Your task to perform on an android device: turn off picture-in-picture Image 0: 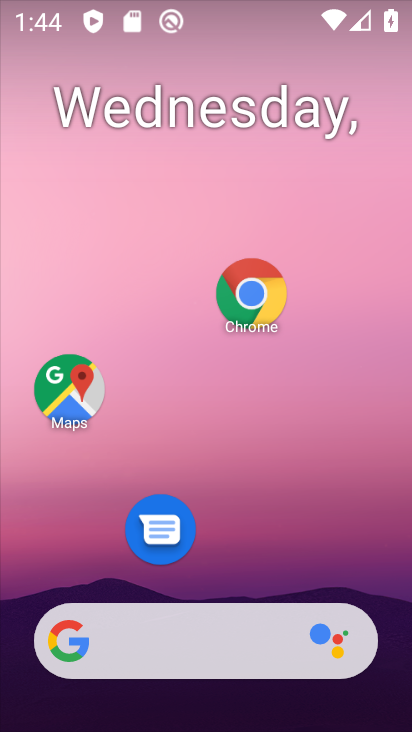
Step 0: drag from (294, 449) to (321, 126)
Your task to perform on an android device: turn off picture-in-picture Image 1: 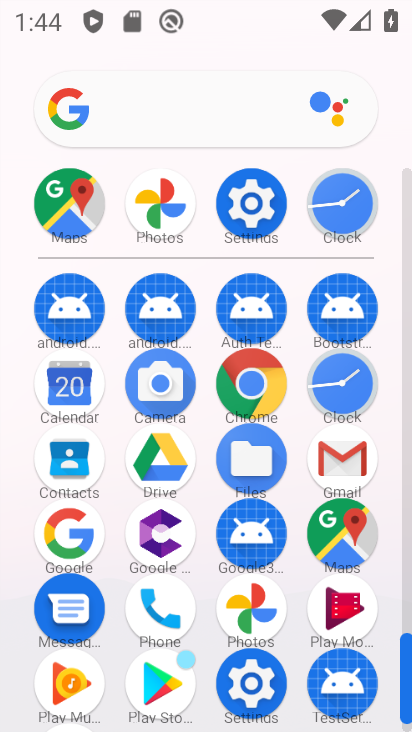
Step 1: click (252, 227)
Your task to perform on an android device: turn off picture-in-picture Image 2: 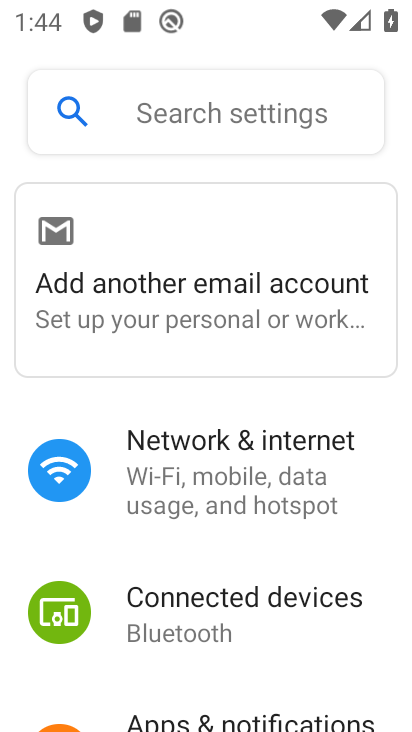
Step 2: drag from (267, 530) to (291, 290)
Your task to perform on an android device: turn off picture-in-picture Image 3: 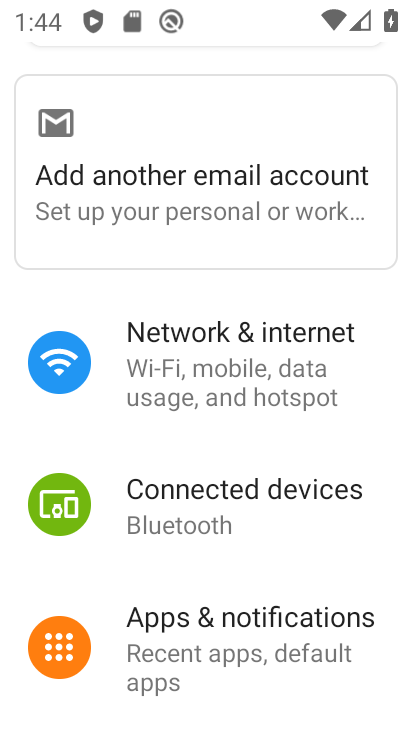
Step 3: drag from (281, 467) to (314, 282)
Your task to perform on an android device: turn off picture-in-picture Image 4: 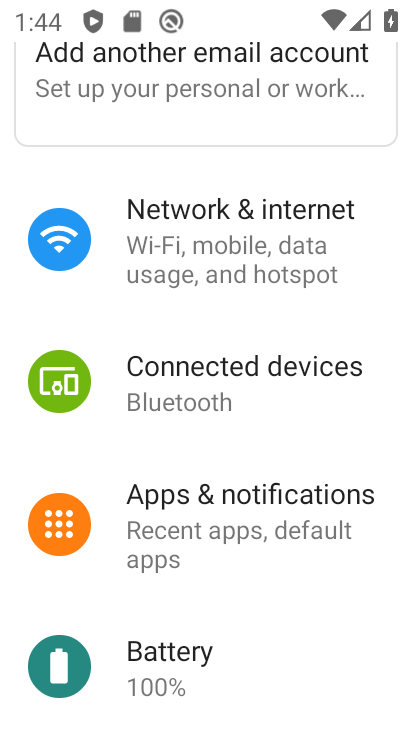
Step 4: drag from (290, 488) to (313, 270)
Your task to perform on an android device: turn off picture-in-picture Image 5: 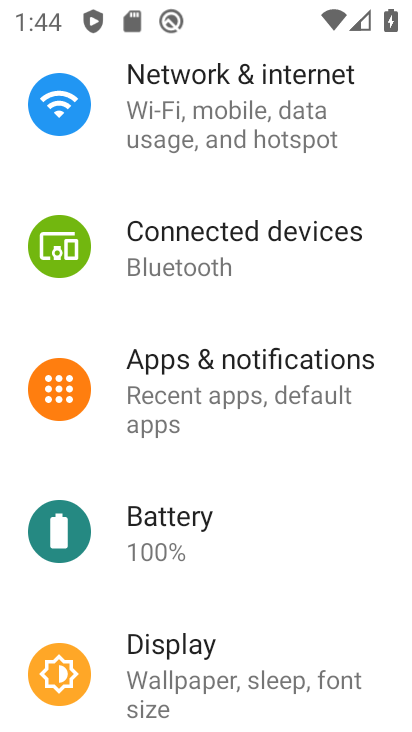
Step 5: drag from (269, 528) to (308, 224)
Your task to perform on an android device: turn off picture-in-picture Image 6: 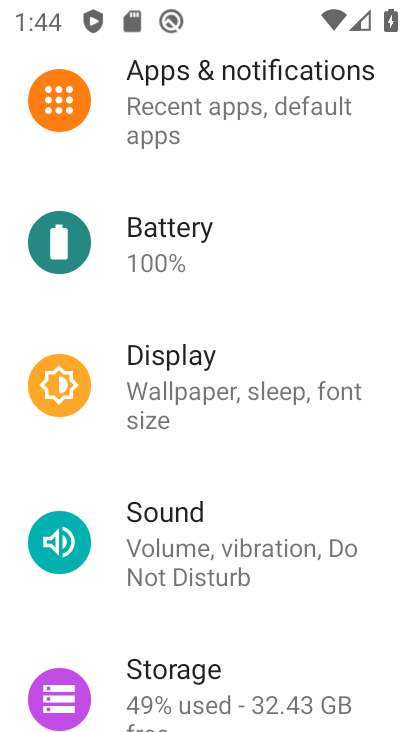
Step 6: drag from (261, 523) to (313, 204)
Your task to perform on an android device: turn off picture-in-picture Image 7: 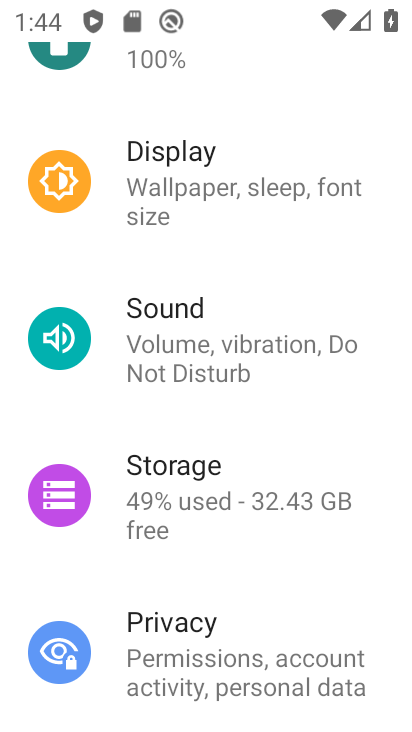
Step 7: drag from (297, 460) to (274, 612)
Your task to perform on an android device: turn off picture-in-picture Image 8: 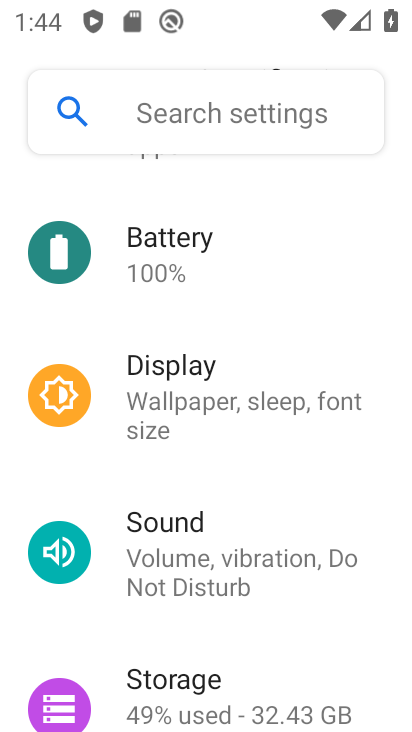
Step 8: drag from (232, 270) to (205, 528)
Your task to perform on an android device: turn off picture-in-picture Image 9: 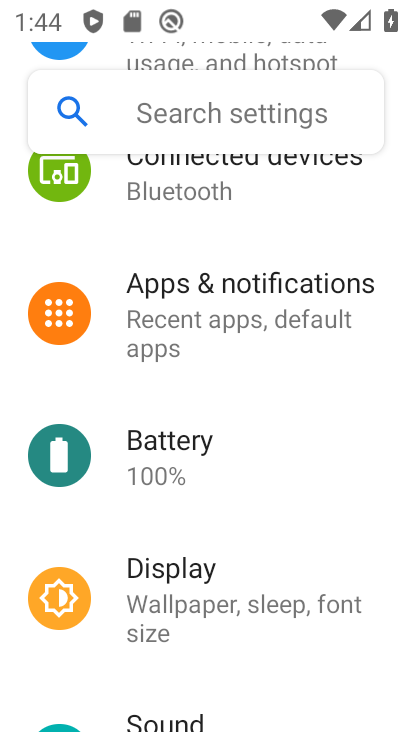
Step 9: click (240, 310)
Your task to perform on an android device: turn off picture-in-picture Image 10: 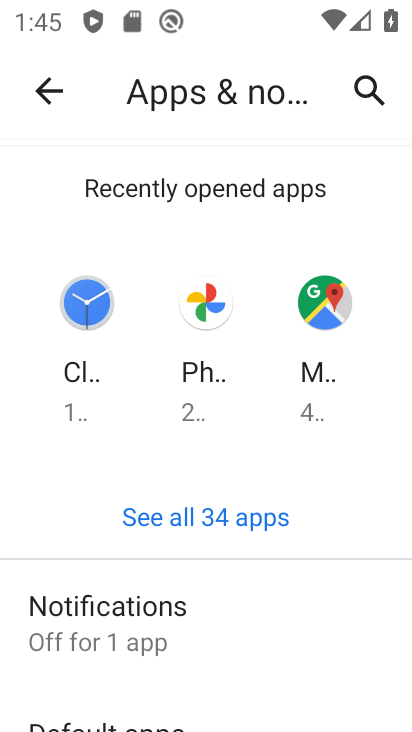
Step 10: drag from (240, 615) to (261, 307)
Your task to perform on an android device: turn off picture-in-picture Image 11: 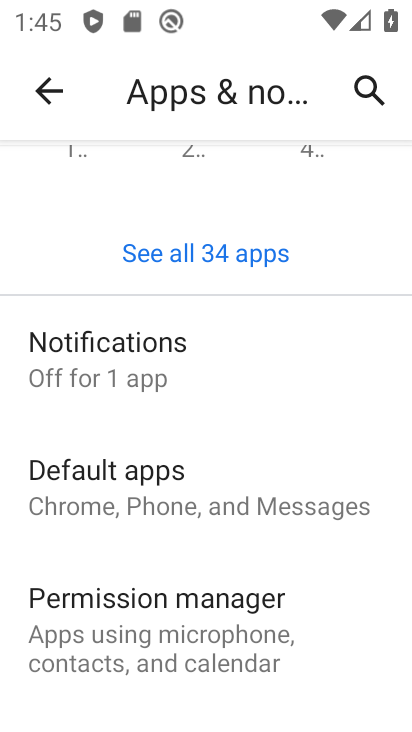
Step 11: drag from (221, 637) to (263, 441)
Your task to perform on an android device: turn off picture-in-picture Image 12: 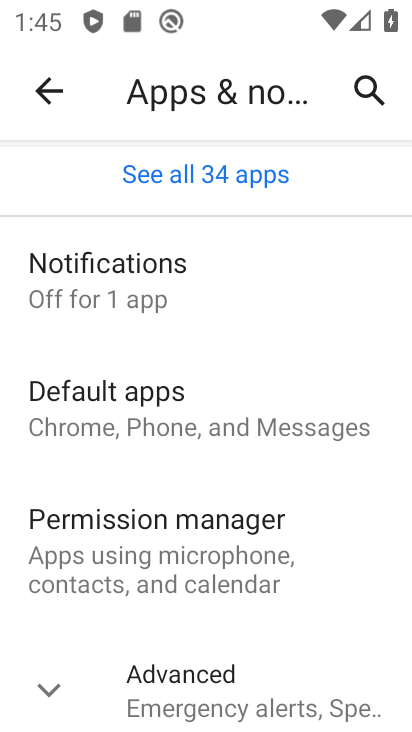
Step 12: click (247, 655)
Your task to perform on an android device: turn off picture-in-picture Image 13: 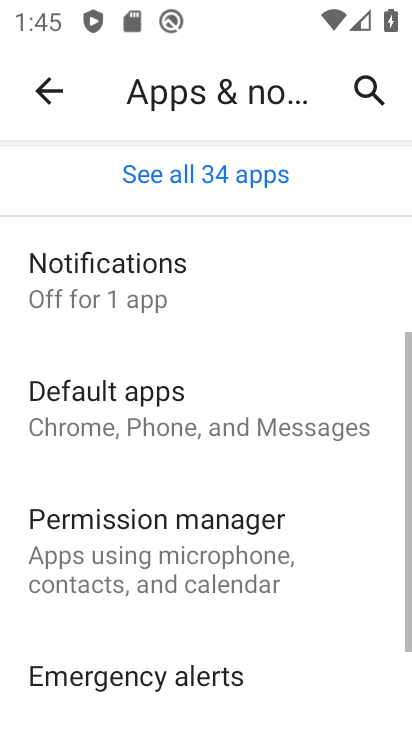
Step 13: drag from (247, 655) to (311, 219)
Your task to perform on an android device: turn off picture-in-picture Image 14: 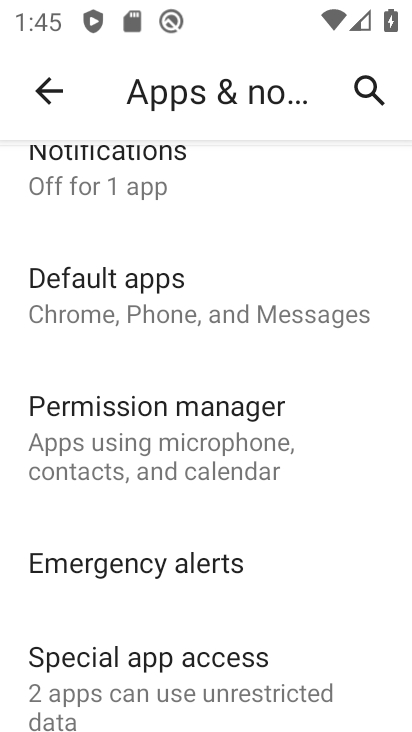
Step 14: drag from (248, 575) to (242, 273)
Your task to perform on an android device: turn off picture-in-picture Image 15: 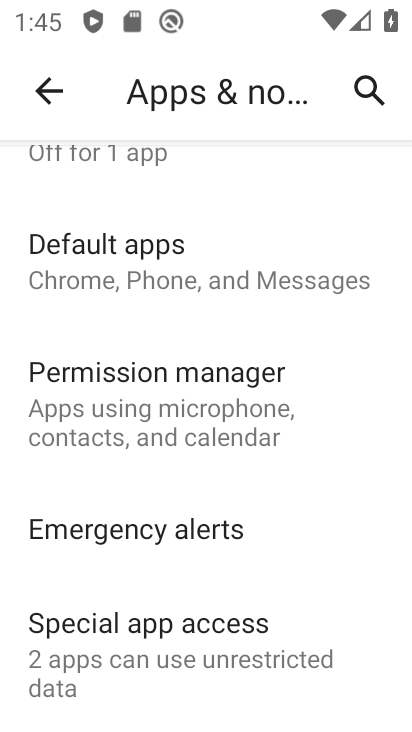
Step 15: click (219, 654)
Your task to perform on an android device: turn off picture-in-picture Image 16: 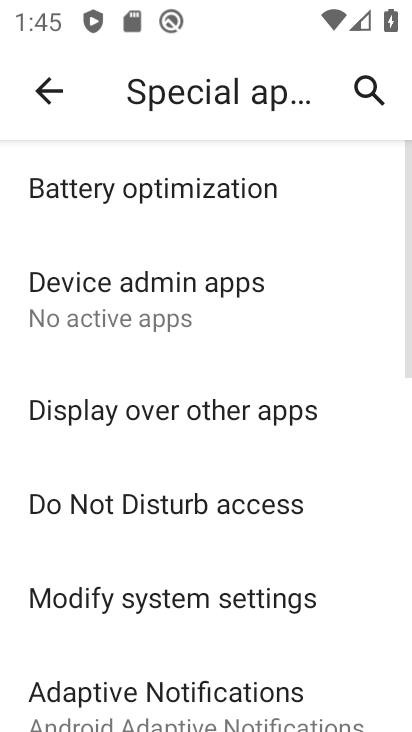
Step 16: drag from (220, 654) to (255, 345)
Your task to perform on an android device: turn off picture-in-picture Image 17: 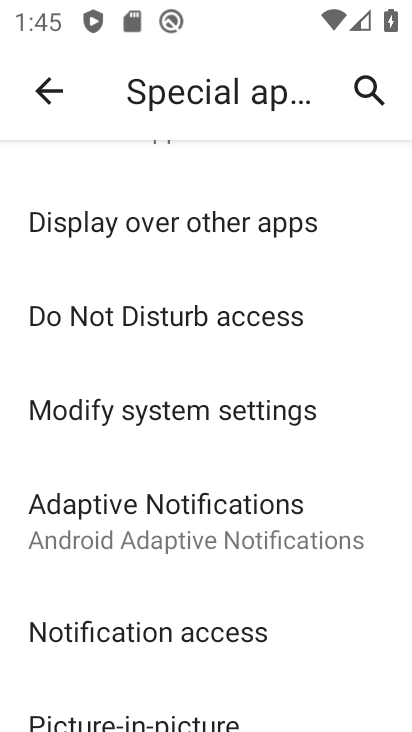
Step 17: drag from (268, 565) to (299, 222)
Your task to perform on an android device: turn off picture-in-picture Image 18: 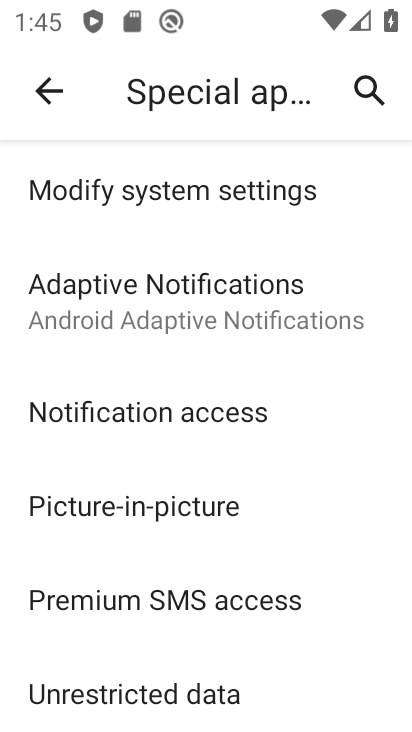
Step 18: click (231, 504)
Your task to perform on an android device: turn off picture-in-picture Image 19: 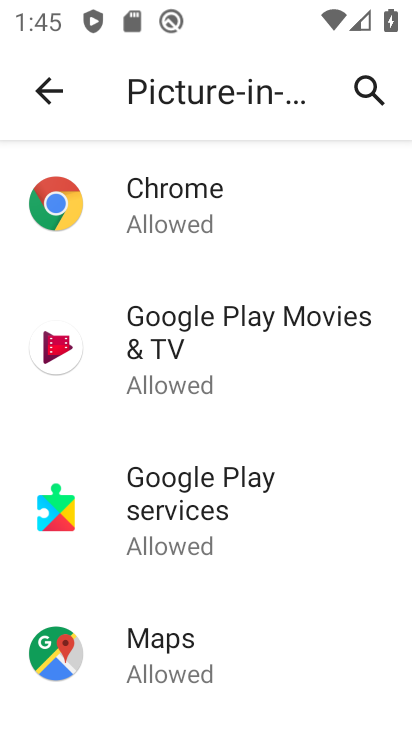
Step 19: click (255, 222)
Your task to perform on an android device: turn off picture-in-picture Image 20: 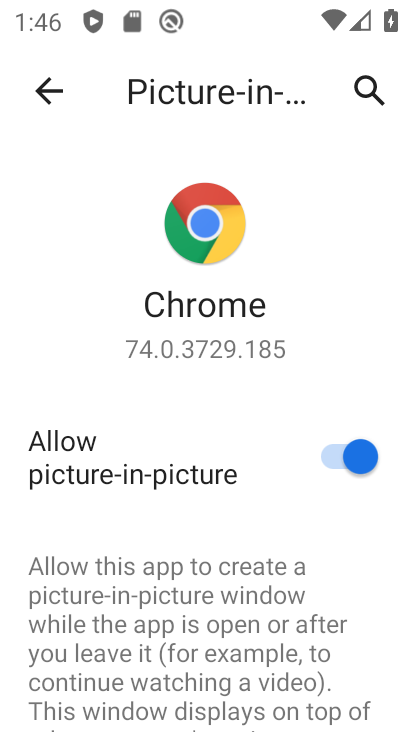
Step 20: click (332, 452)
Your task to perform on an android device: turn off picture-in-picture Image 21: 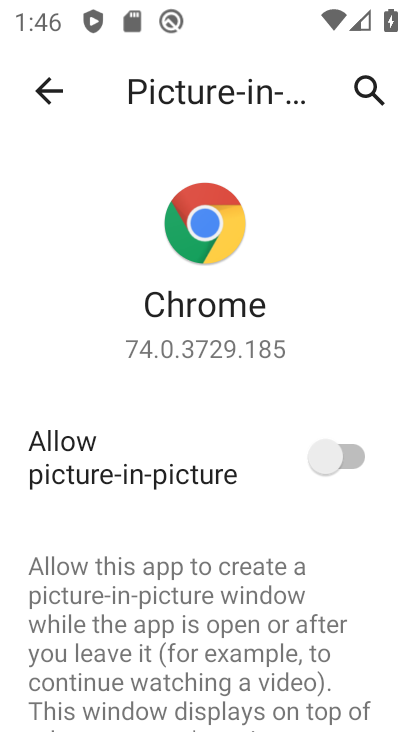
Step 21: task complete